Your task to perform on an android device: Open battery settings Image 0: 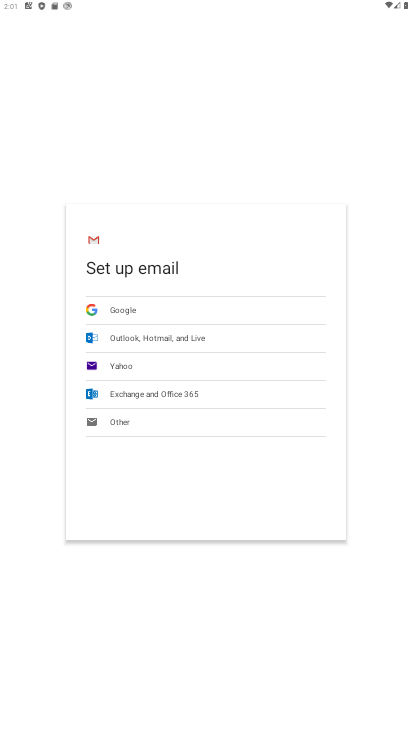
Step 0: press home button
Your task to perform on an android device: Open battery settings Image 1: 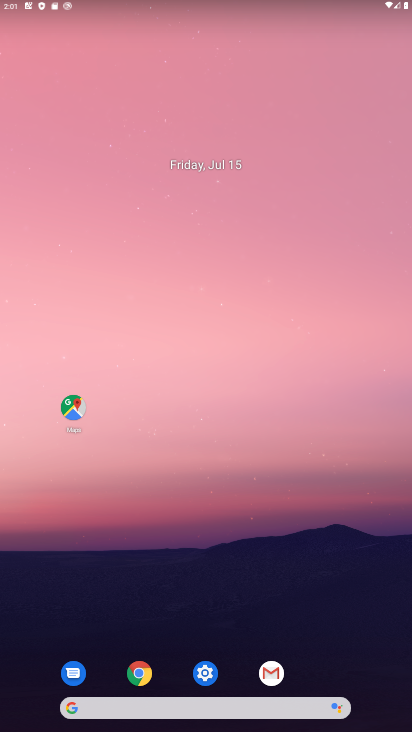
Step 1: click (200, 667)
Your task to perform on an android device: Open battery settings Image 2: 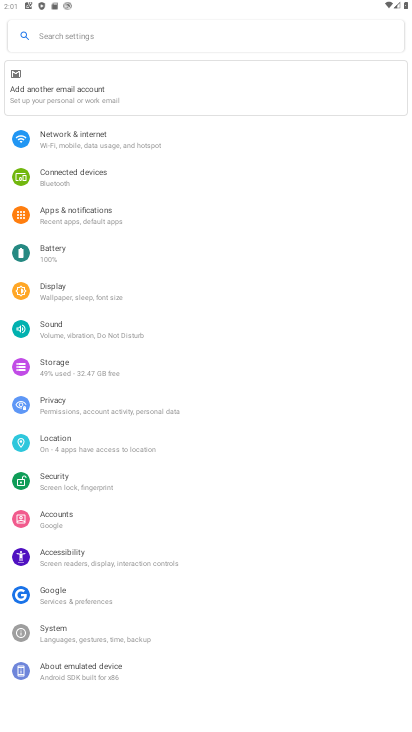
Step 2: click (46, 256)
Your task to perform on an android device: Open battery settings Image 3: 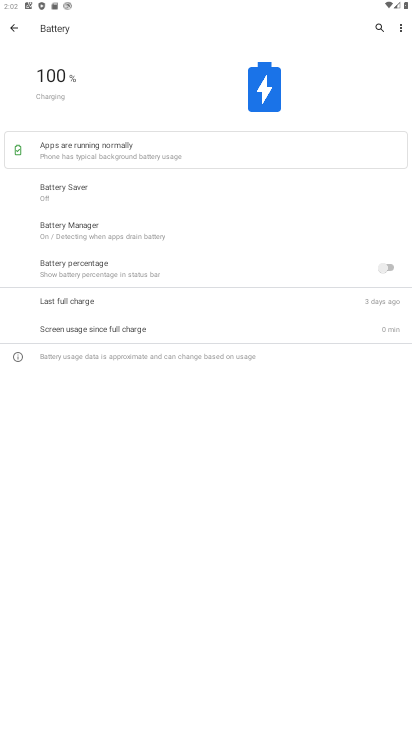
Step 3: task complete